Your task to perform on an android device: turn on priority inbox in the gmail app Image 0: 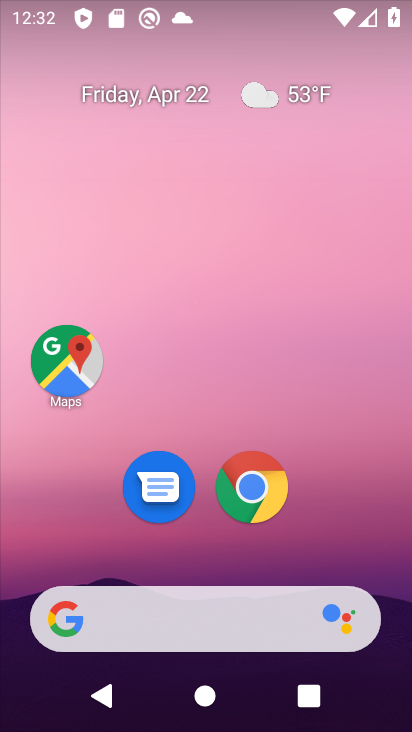
Step 0: drag from (218, 562) to (236, 31)
Your task to perform on an android device: turn on priority inbox in the gmail app Image 1: 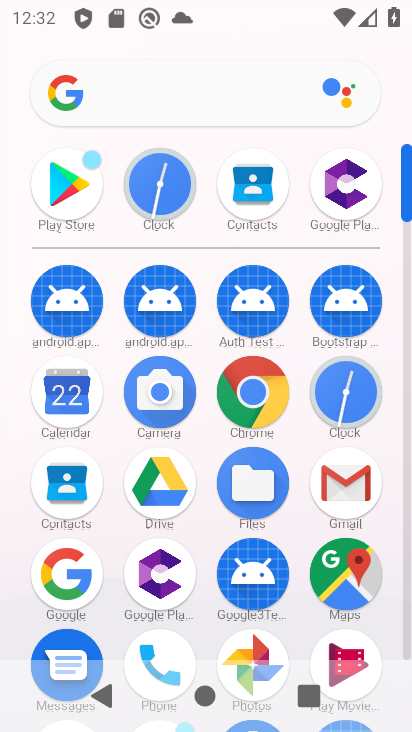
Step 1: click (359, 504)
Your task to perform on an android device: turn on priority inbox in the gmail app Image 2: 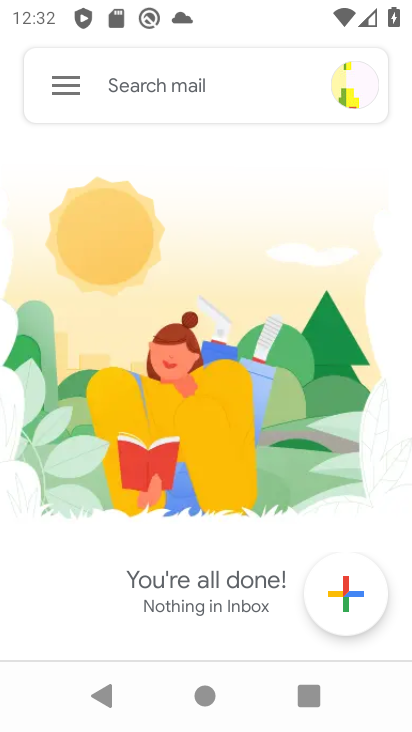
Step 2: click (73, 93)
Your task to perform on an android device: turn on priority inbox in the gmail app Image 3: 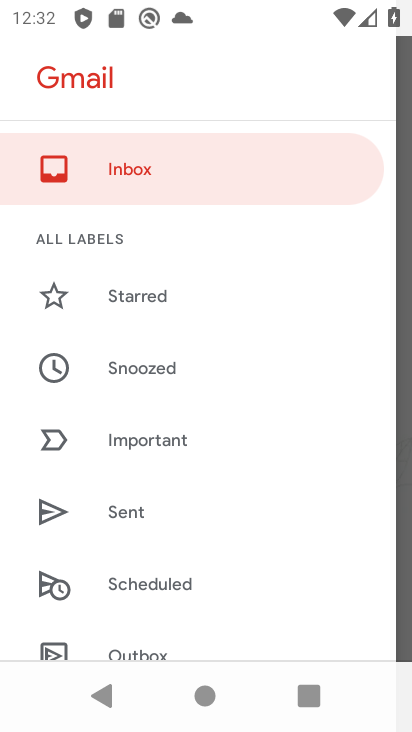
Step 3: drag from (75, 614) to (167, 99)
Your task to perform on an android device: turn on priority inbox in the gmail app Image 4: 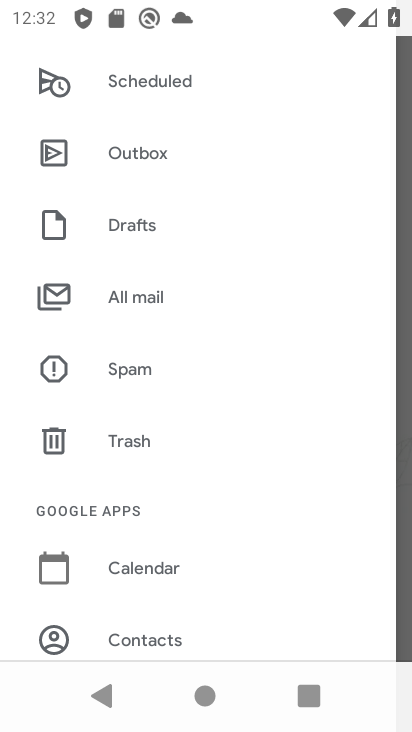
Step 4: drag from (68, 579) to (176, 81)
Your task to perform on an android device: turn on priority inbox in the gmail app Image 5: 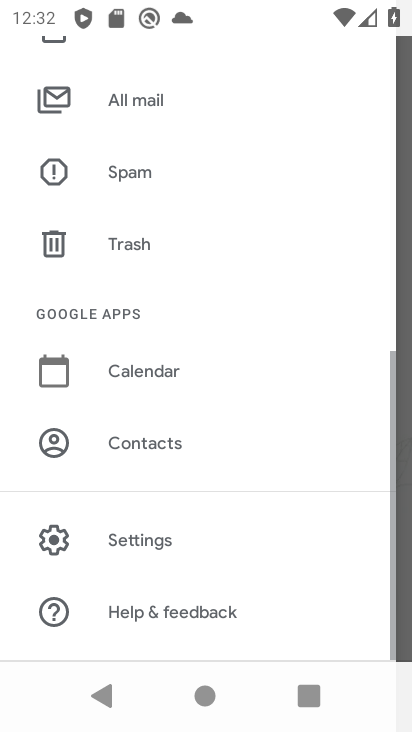
Step 5: click (66, 551)
Your task to perform on an android device: turn on priority inbox in the gmail app Image 6: 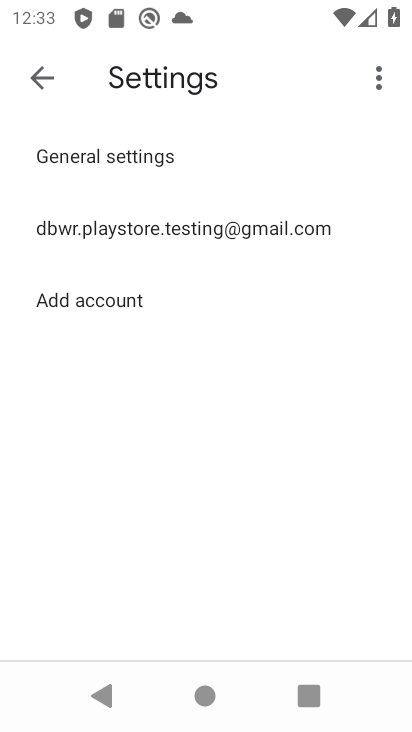
Step 6: click (212, 236)
Your task to perform on an android device: turn on priority inbox in the gmail app Image 7: 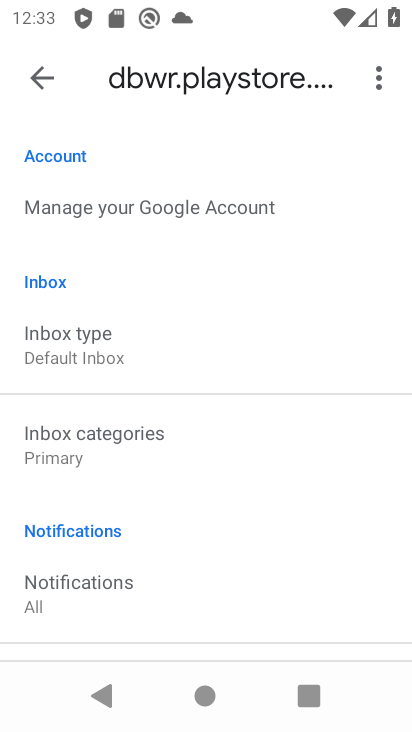
Step 7: click (224, 362)
Your task to perform on an android device: turn on priority inbox in the gmail app Image 8: 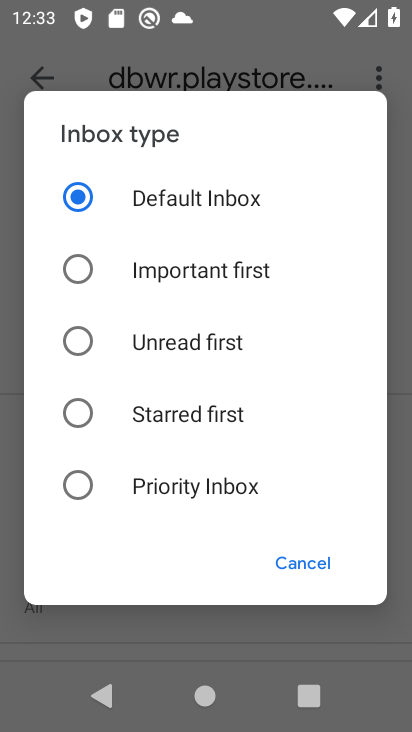
Step 8: click (133, 486)
Your task to perform on an android device: turn on priority inbox in the gmail app Image 9: 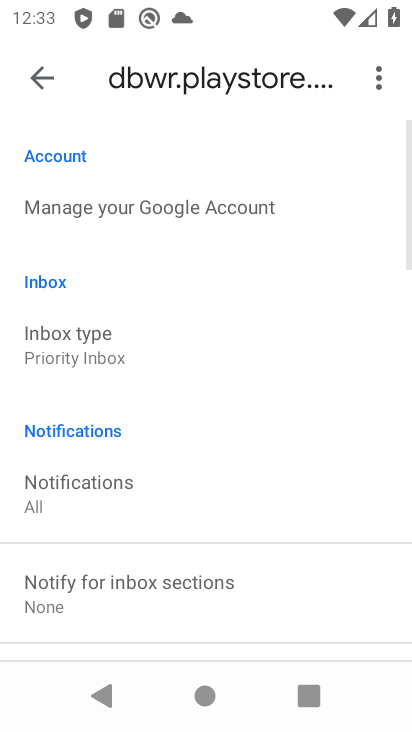
Step 9: task complete